Your task to perform on an android device: Show me productivity apps on the Play Store Image 0: 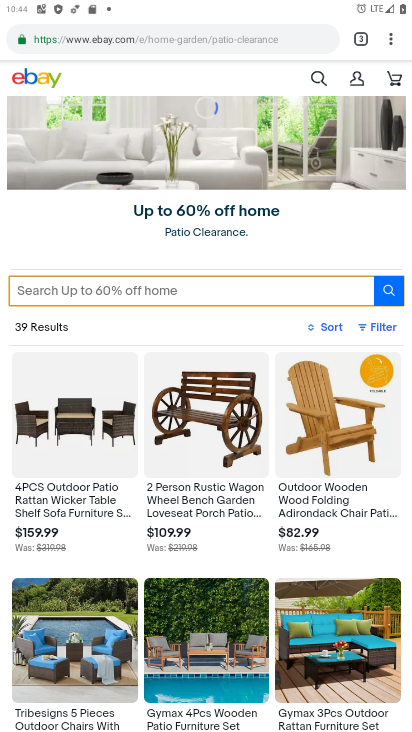
Step 0: drag from (216, 542) to (356, 725)
Your task to perform on an android device: Show me productivity apps on the Play Store Image 1: 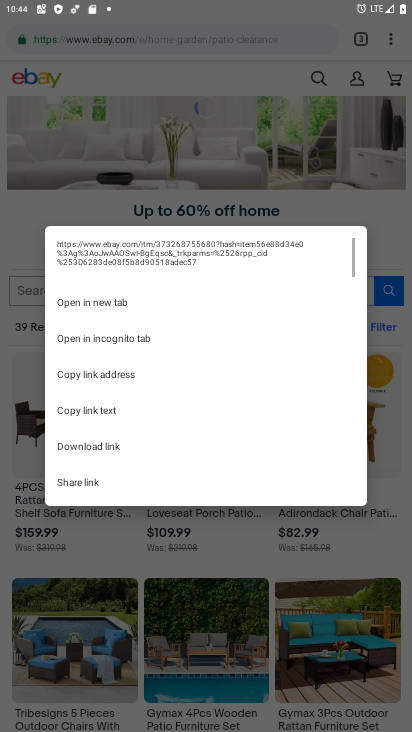
Step 1: drag from (301, 349) to (357, 186)
Your task to perform on an android device: Show me productivity apps on the Play Store Image 2: 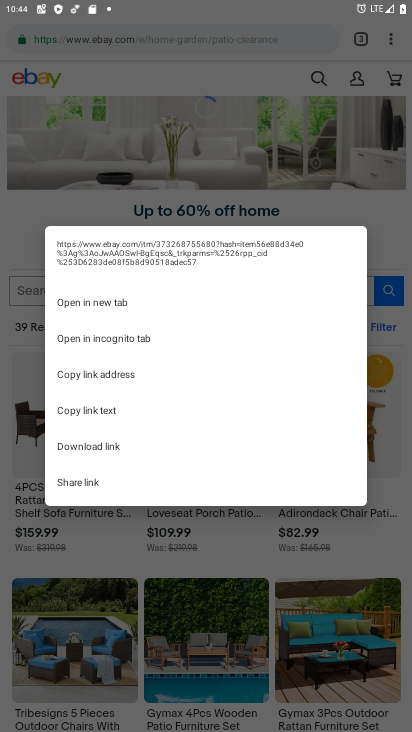
Step 2: click (23, 207)
Your task to perform on an android device: Show me productivity apps on the Play Store Image 3: 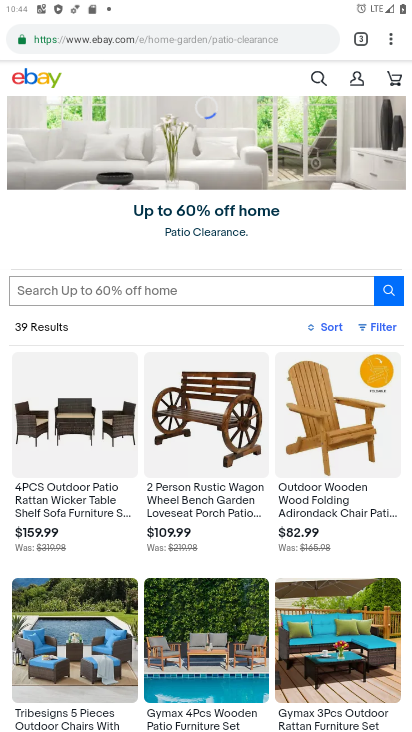
Step 3: press home button
Your task to perform on an android device: Show me productivity apps on the Play Store Image 4: 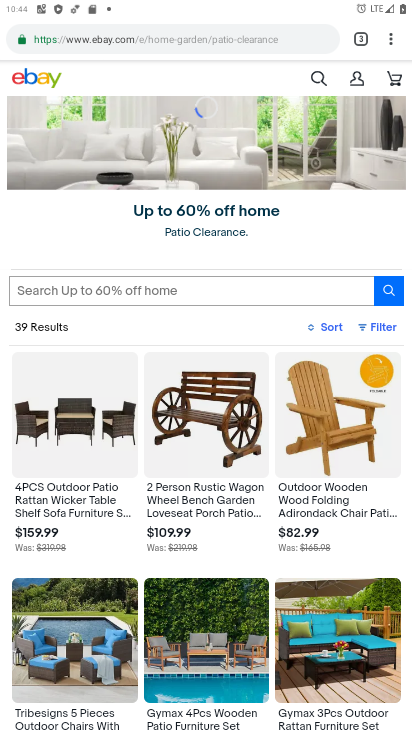
Step 4: click (263, 190)
Your task to perform on an android device: Show me productivity apps on the Play Store Image 5: 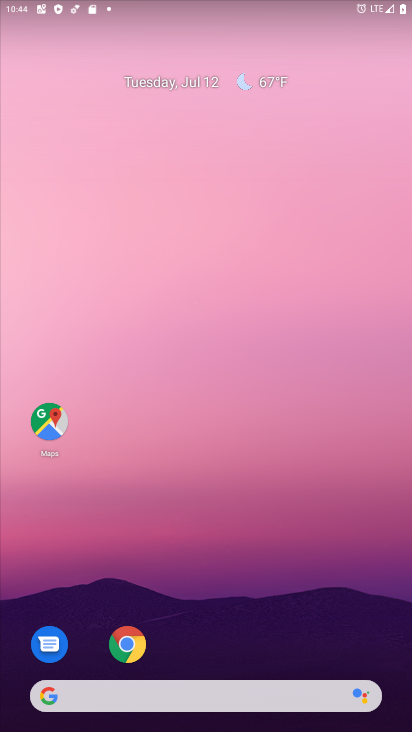
Step 5: drag from (193, 601) to (292, 151)
Your task to perform on an android device: Show me productivity apps on the Play Store Image 6: 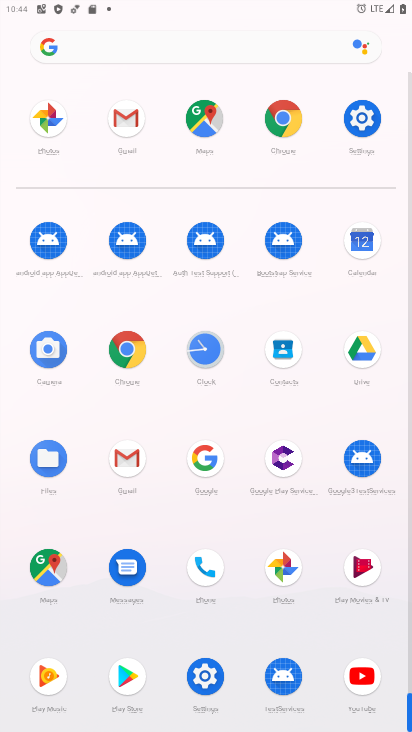
Step 6: click (123, 677)
Your task to perform on an android device: Show me productivity apps on the Play Store Image 7: 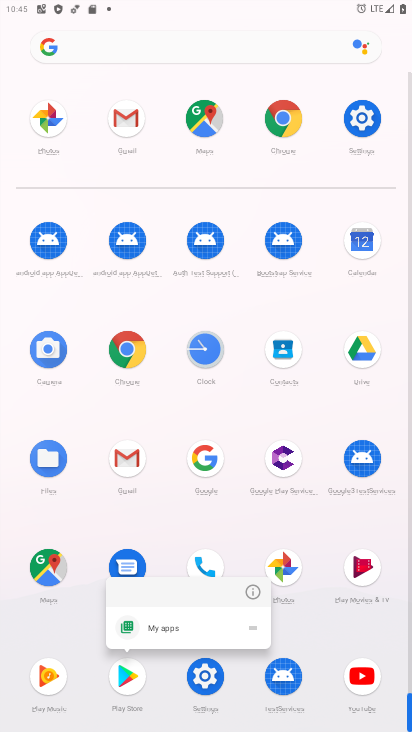
Step 7: click (256, 589)
Your task to perform on an android device: Show me productivity apps on the Play Store Image 8: 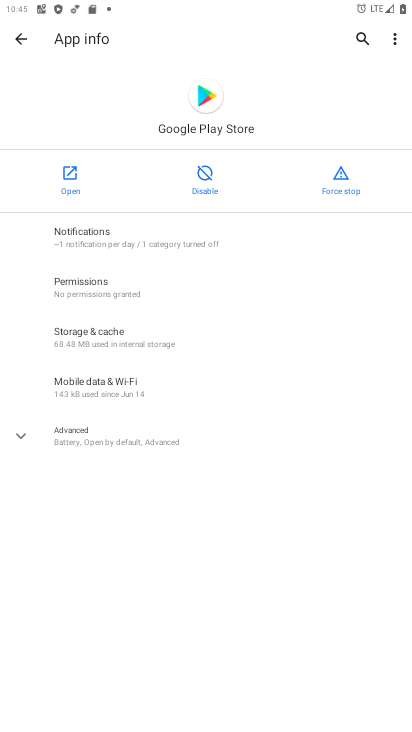
Step 8: click (68, 199)
Your task to perform on an android device: Show me productivity apps on the Play Store Image 9: 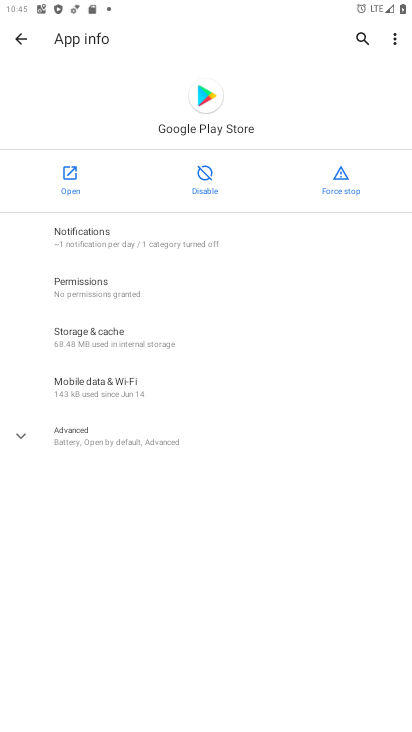
Step 9: click (67, 193)
Your task to perform on an android device: Show me productivity apps on the Play Store Image 10: 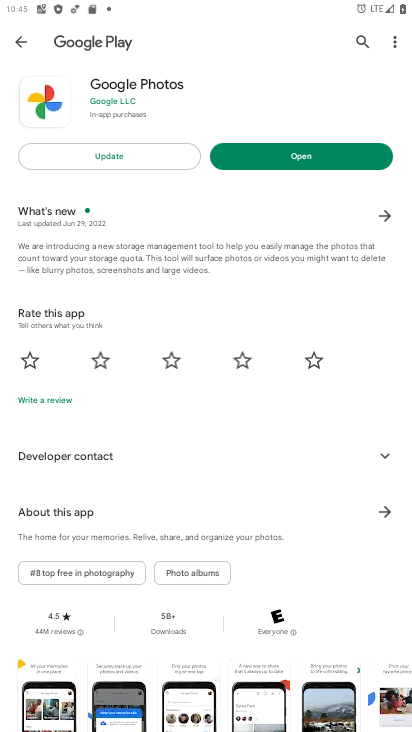
Step 10: click (10, 14)
Your task to perform on an android device: Show me productivity apps on the Play Store Image 11: 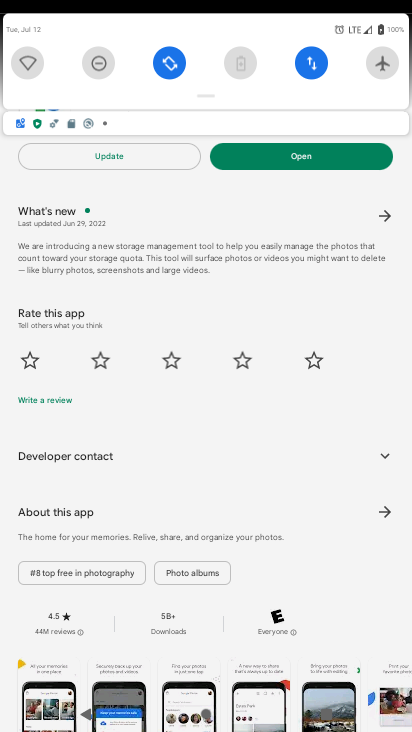
Step 11: click (20, 31)
Your task to perform on an android device: Show me productivity apps on the Play Store Image 12: 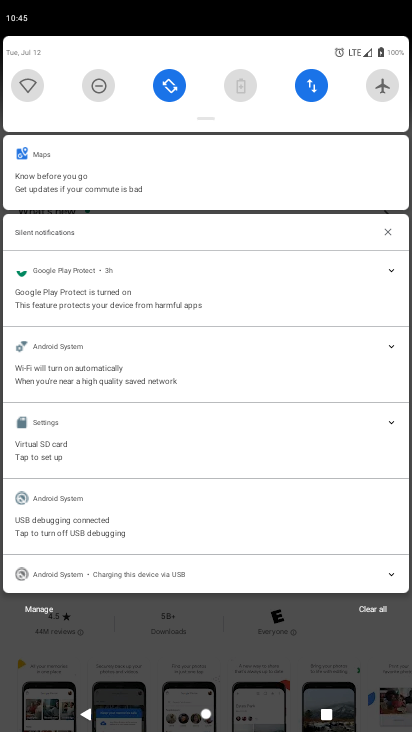
Step 12: task complete